Your task to perform on an android device: turn off smart reply in the gmail app Image 0: 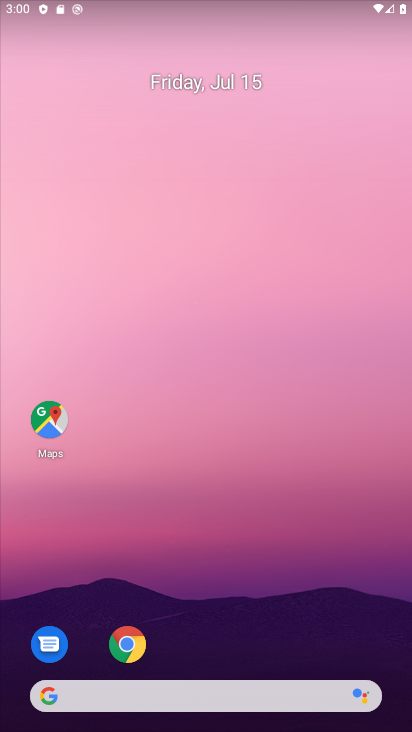
Step 0: drag from (284, 697) to (320, 125)
Your task to perform on an android device: turn off smart reply in the gmail app Image 1: 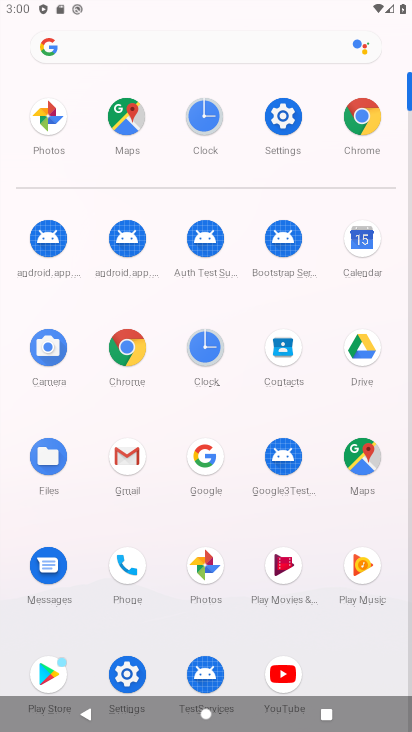
Step 1: click (120, 458)
Your task to perform on an android device: turn off smart reply in the gmail app Image 2: 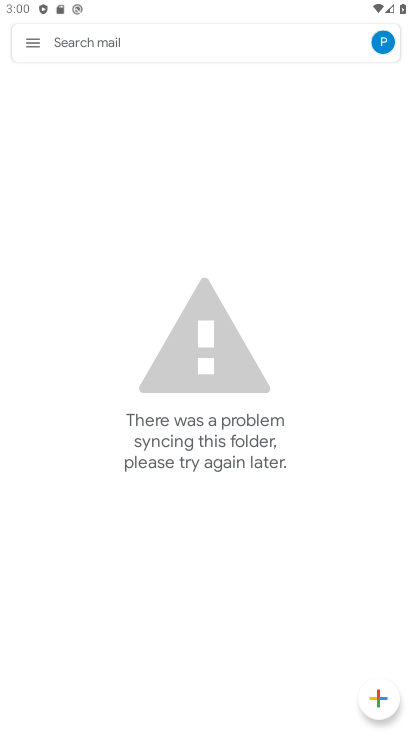
Step 2: click (38, 37)
Your task to perform on an android device: turn off smart reply in the gmail app Image 3: 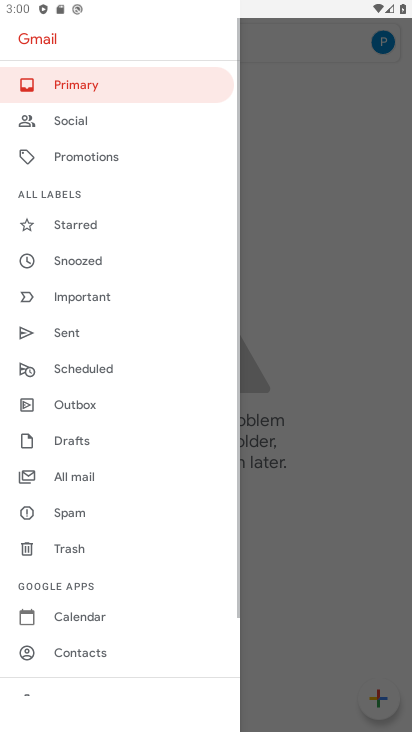
Step 3: drag from (85, 669) to (98, 215)
Your task to perform on an android device: turn off smart reply in the gmail app Image 4: 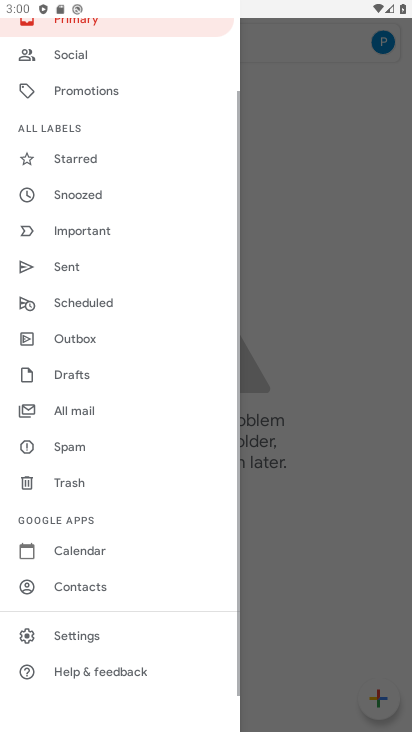
Step 4: click (79, 638)
Your task to perform on an android device: turn off smart reply in the gmail app Image 5: 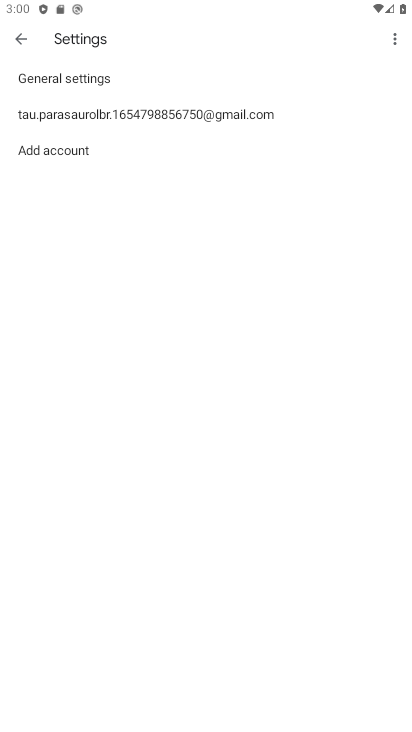
Step 5: click (124, 108)
Your task to perform on an android device: turn off smart reply in the gmail app Image 6: 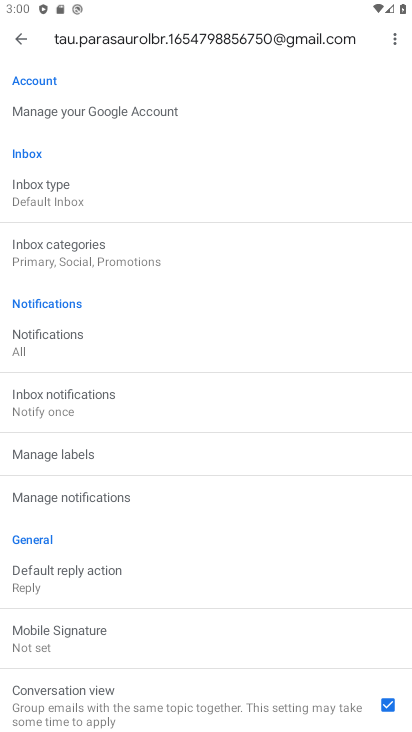
Step 6: drag from (129, 614) to (169, 76)
Your task to perform on an android device: turn off smart reply in the gmail app Image 7: 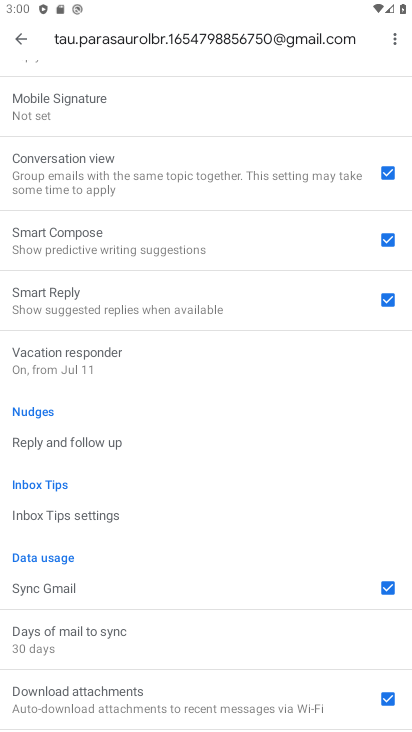
Step 7: click (297, 309)
Your task to perform on an android device: turn off smart reply in the gmail app Image 8: 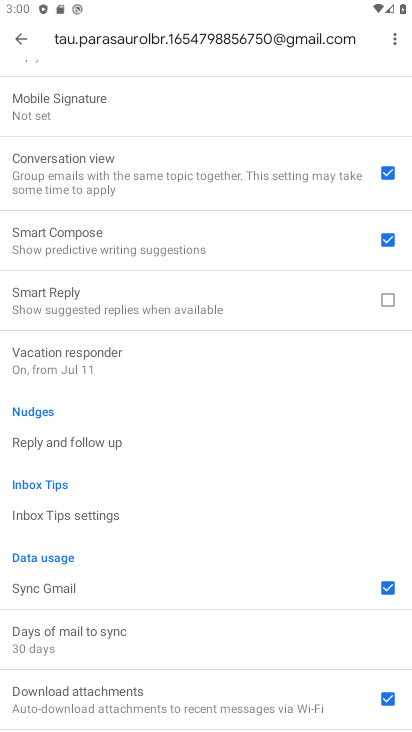
Step 8: task complete